Your task to perform on an android device: toggle airplane mode Image 0: 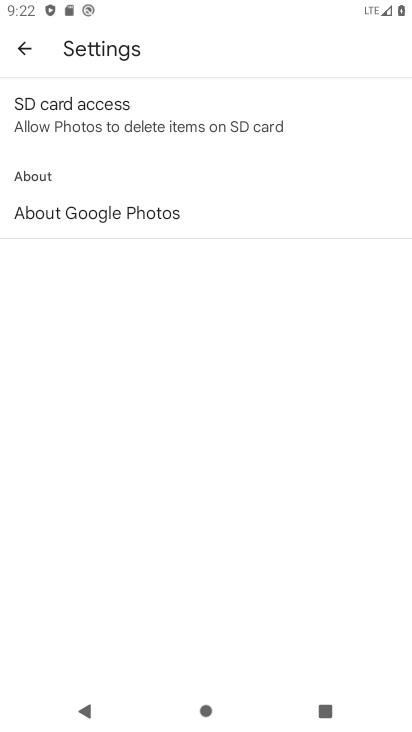
Step 0: press home button
Your task to perform on an android device: toggle airplane mode Image 1: 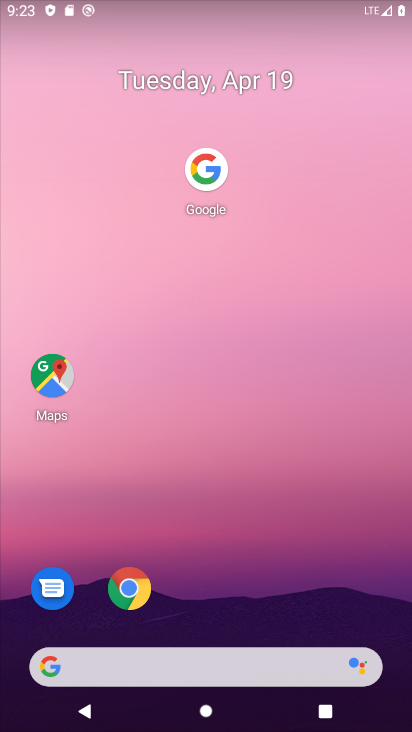
Step 1: drag from (231, 522) to (252, 3)
Your task to perform on an android device: toggle airplane mode Image 2: 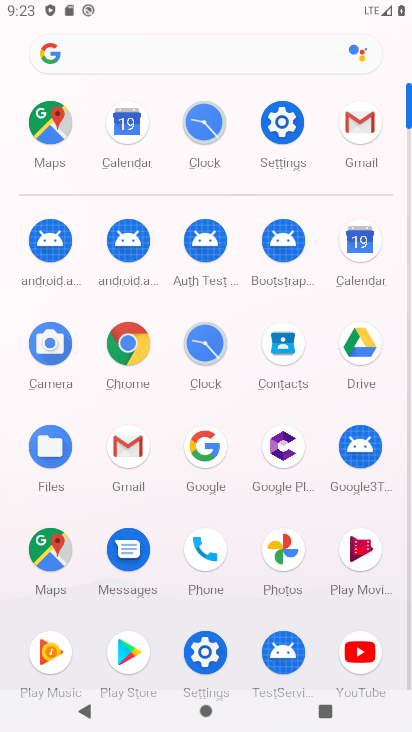
Step 2: click (282, 120)
Your task to perform on an android device: toggle airplane mode Image 3: 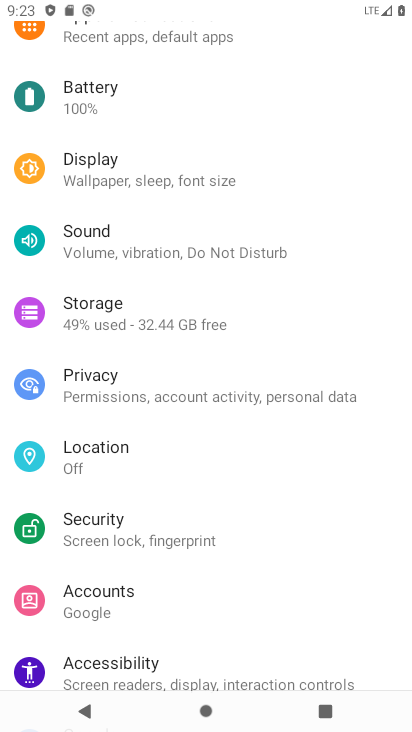
Step 3: drag from (168, 140) to (257, 713)
Your task to perform on an android device: toggle airplane mode Image 4: 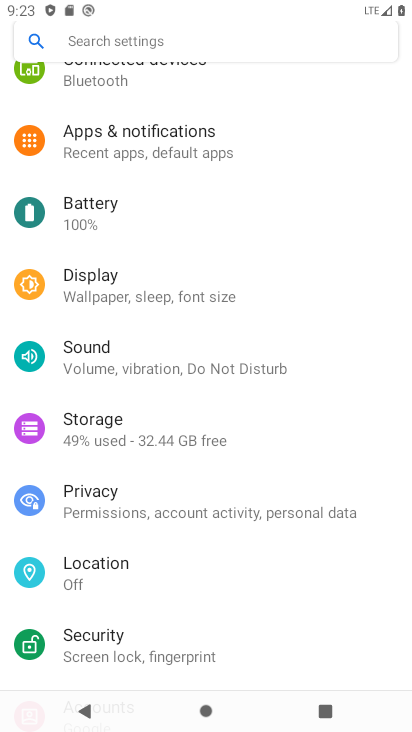
Step 4: drag from (178, 109) to (186, 461)
Your task to perform on an android device: toggle airplane mode Image 5: 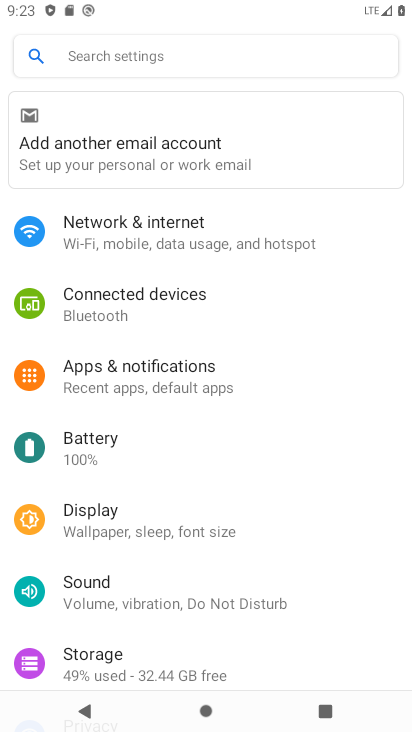
Step 5: click (121, 234)
Your task to perform on an android device: toggle airplane mode Image 6: 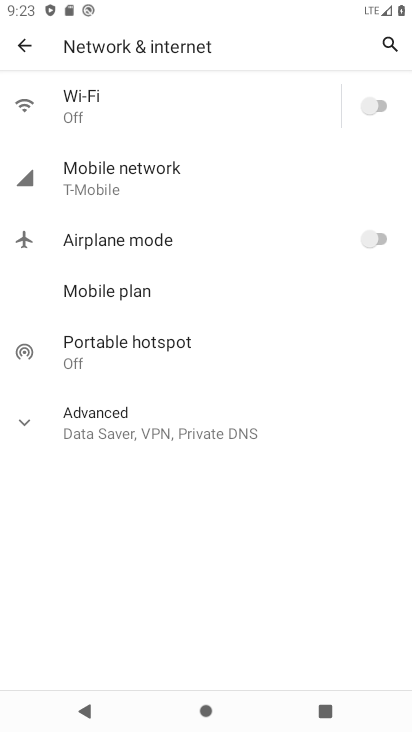
Step 6: click (373, 242)
Your task to perform on an android device: toggle airplane mode Image 7: 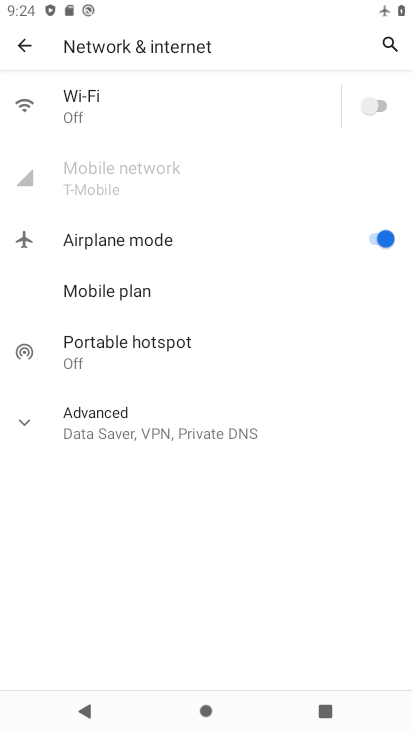
Step 7: task complete